Your task to perform on an android device: turn pop-ups off in chrome Image 0: 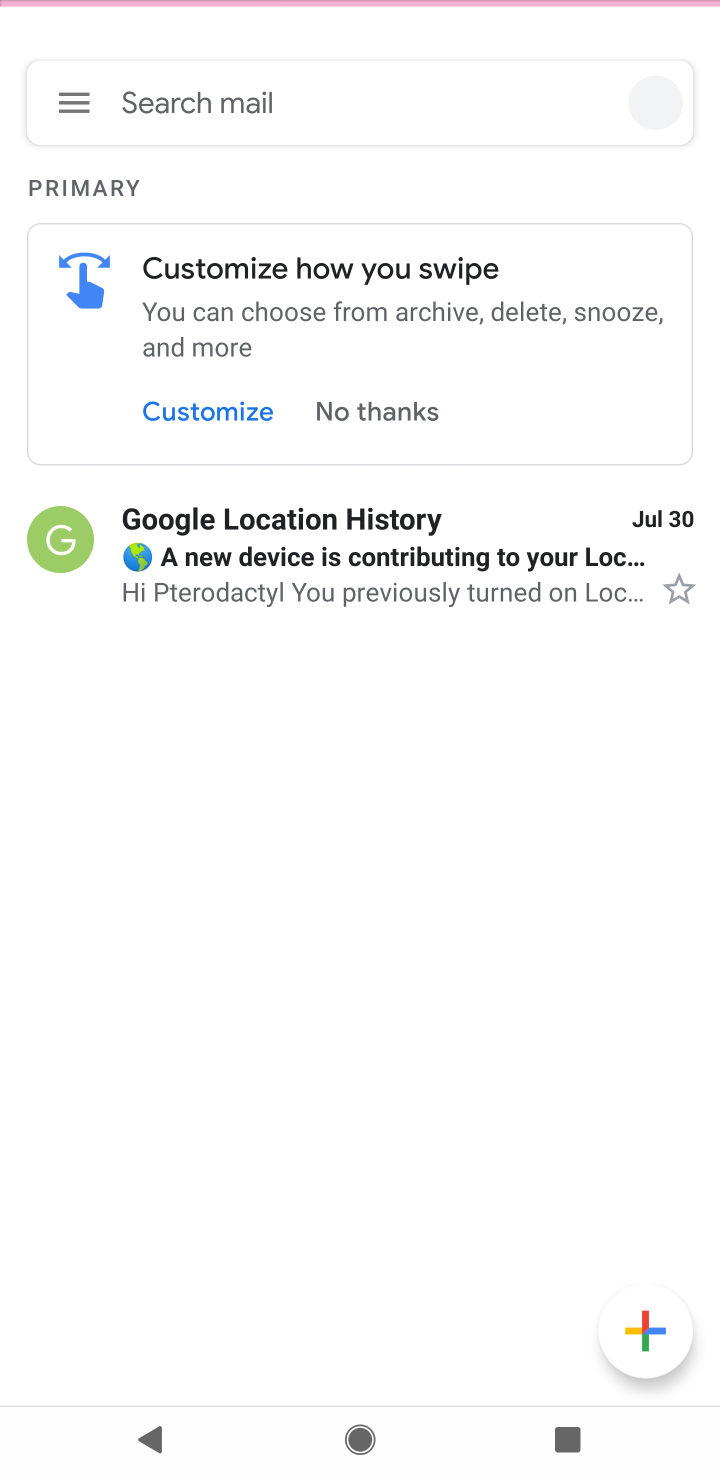
Step 0: press home button
Your task to perform on an android device: turn pop-ups off in chrome Image 1: 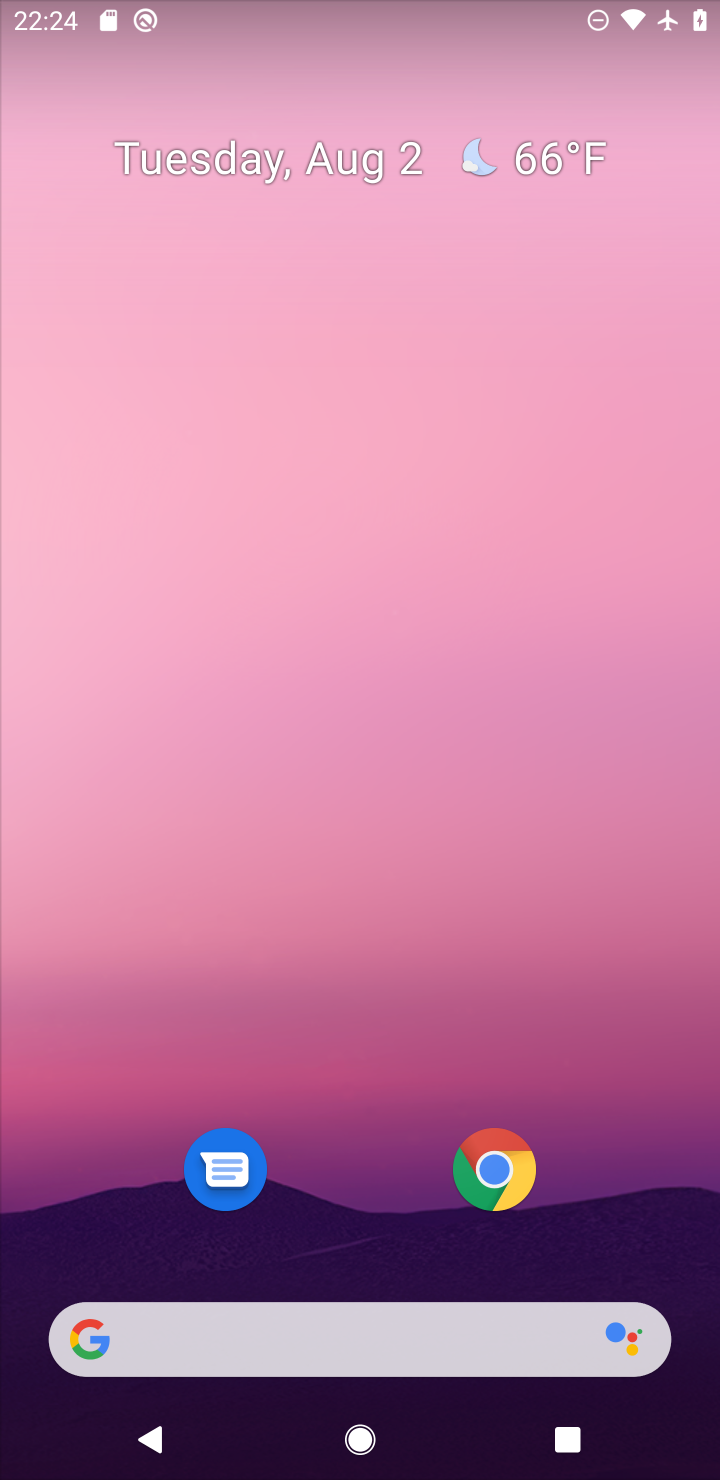
Step 1: click (495, 1169)
Your task to perform on an android device: turn pop-ups off in chrome Image 2: 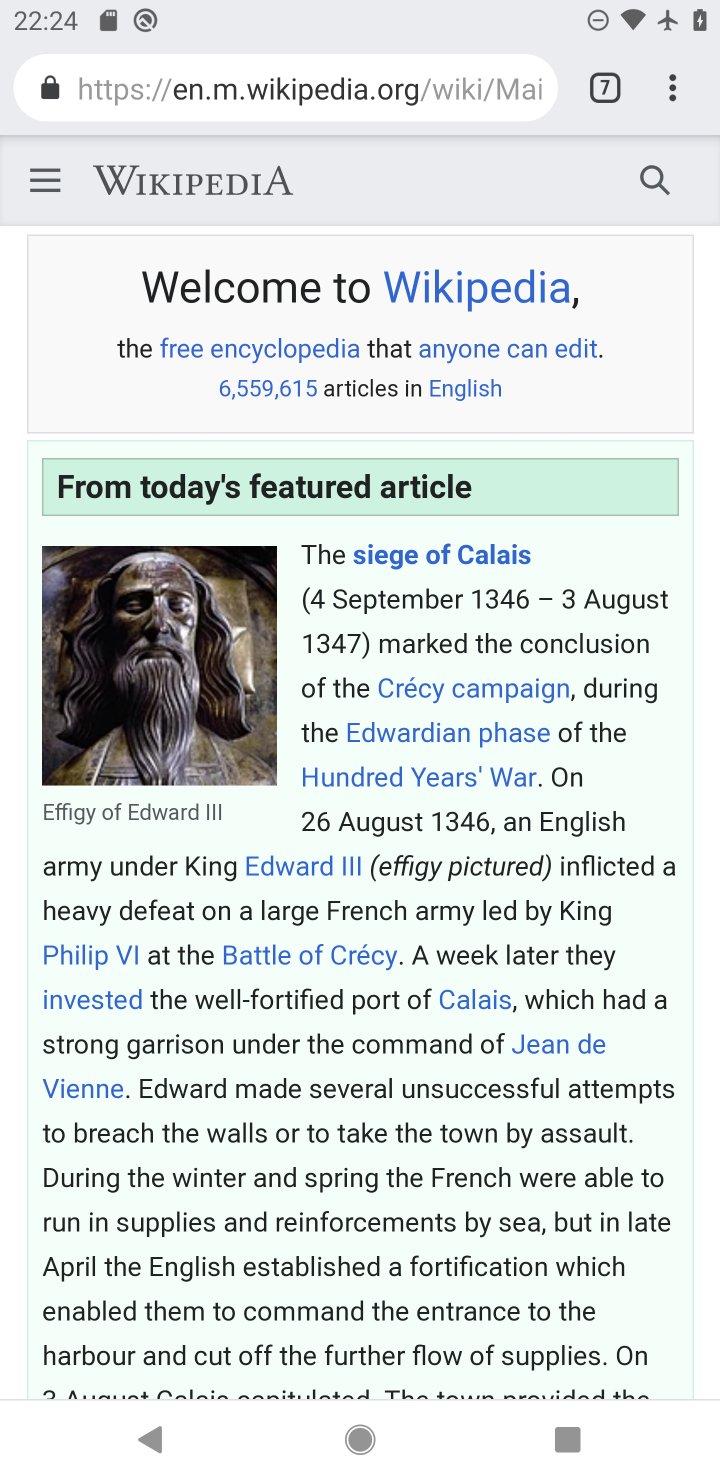
Step 2: click (674, 94)
Your task to perform on an android device: turn pop-ups off in chrome Image 3: 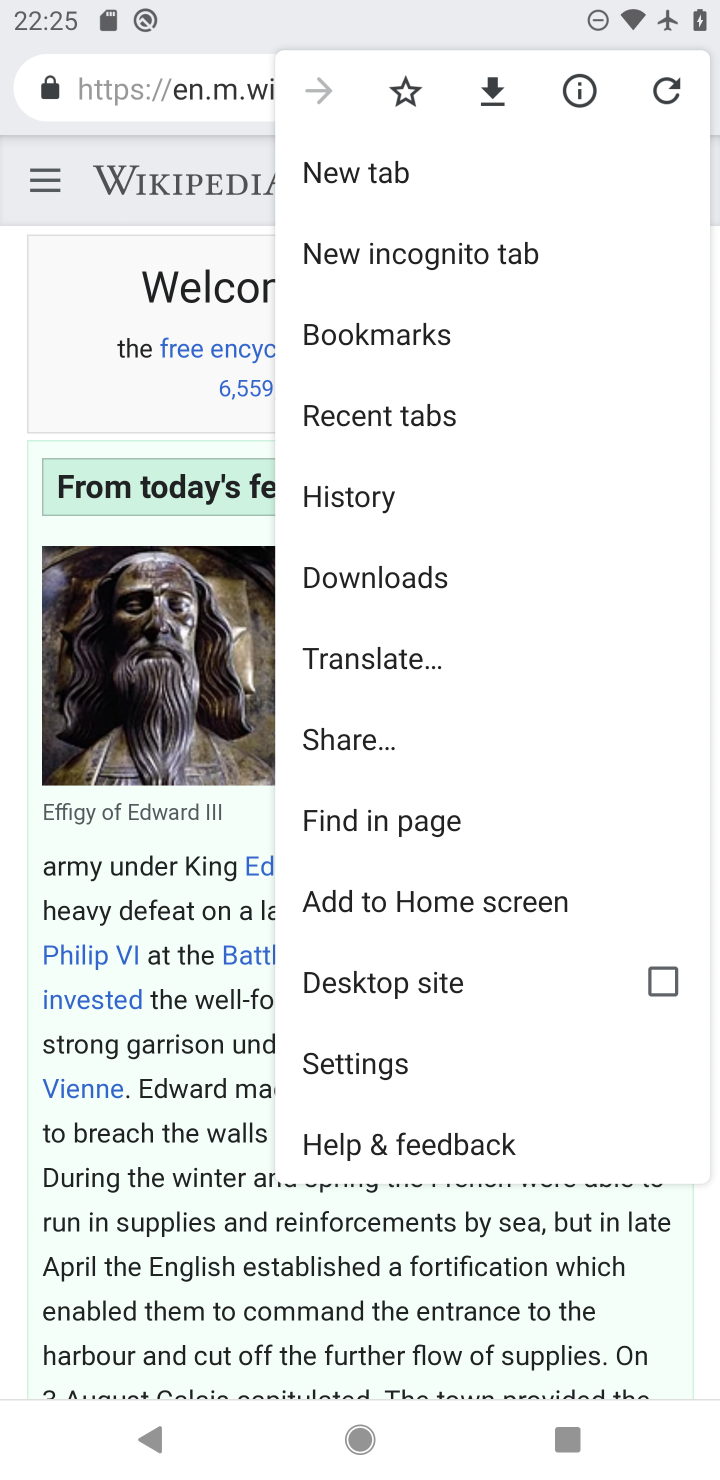
Step 3: click (337, 1057)
Your task to perform on an android device: turn pop-ups off in chrome Image 4: 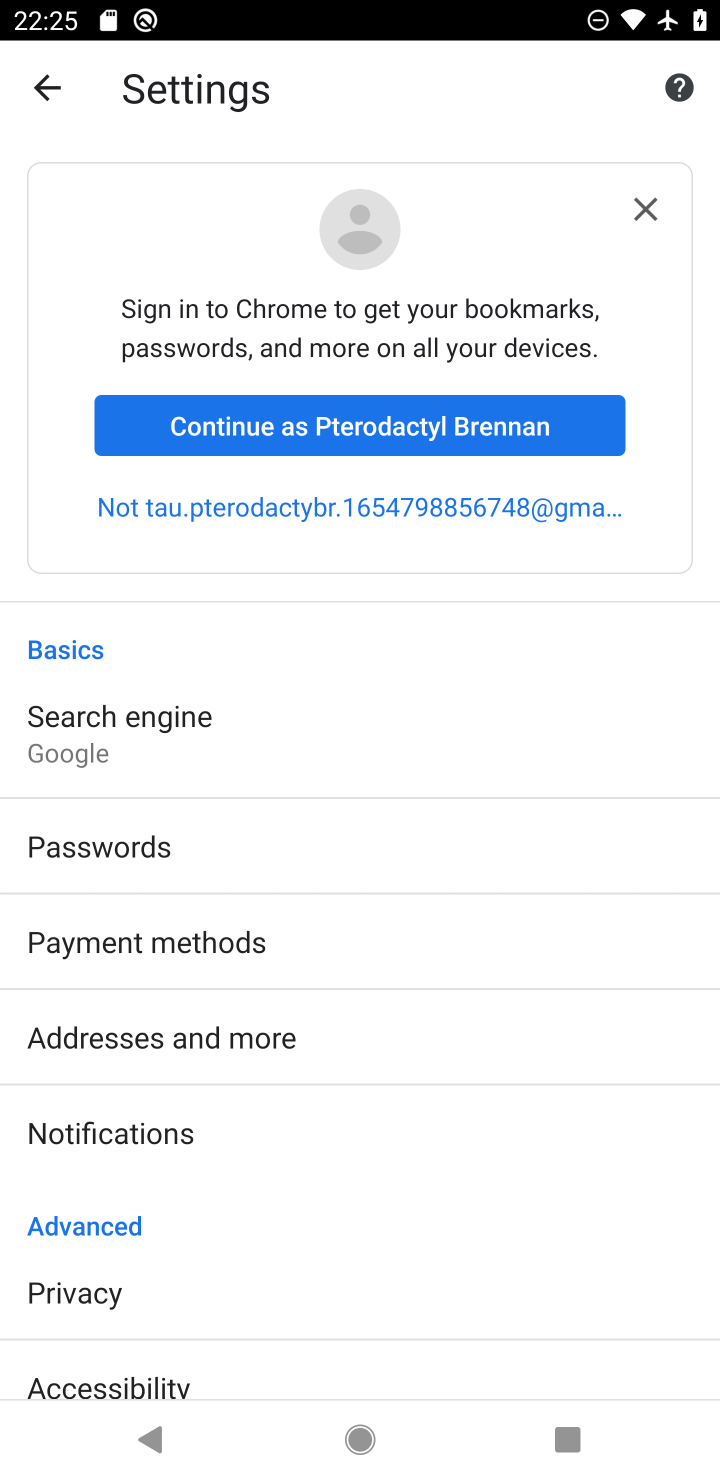
Step 4: drag from (250, 1313) to (236, 622)
Your task to perform on an android device: turn pop-ups off in chrome Image 5: 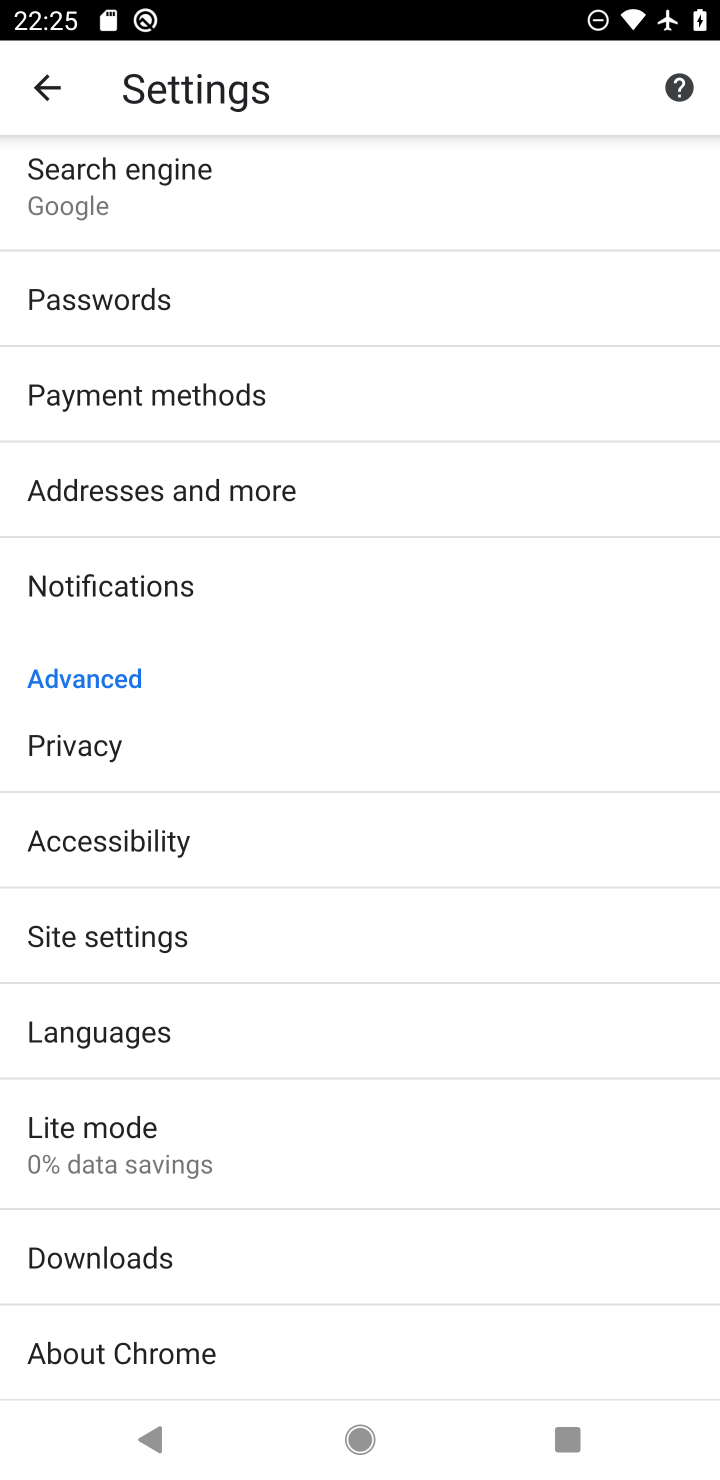
Step 5: click (125, 941)
Your task to perform on an android device: turn pop-ups off in chrome Image 6: 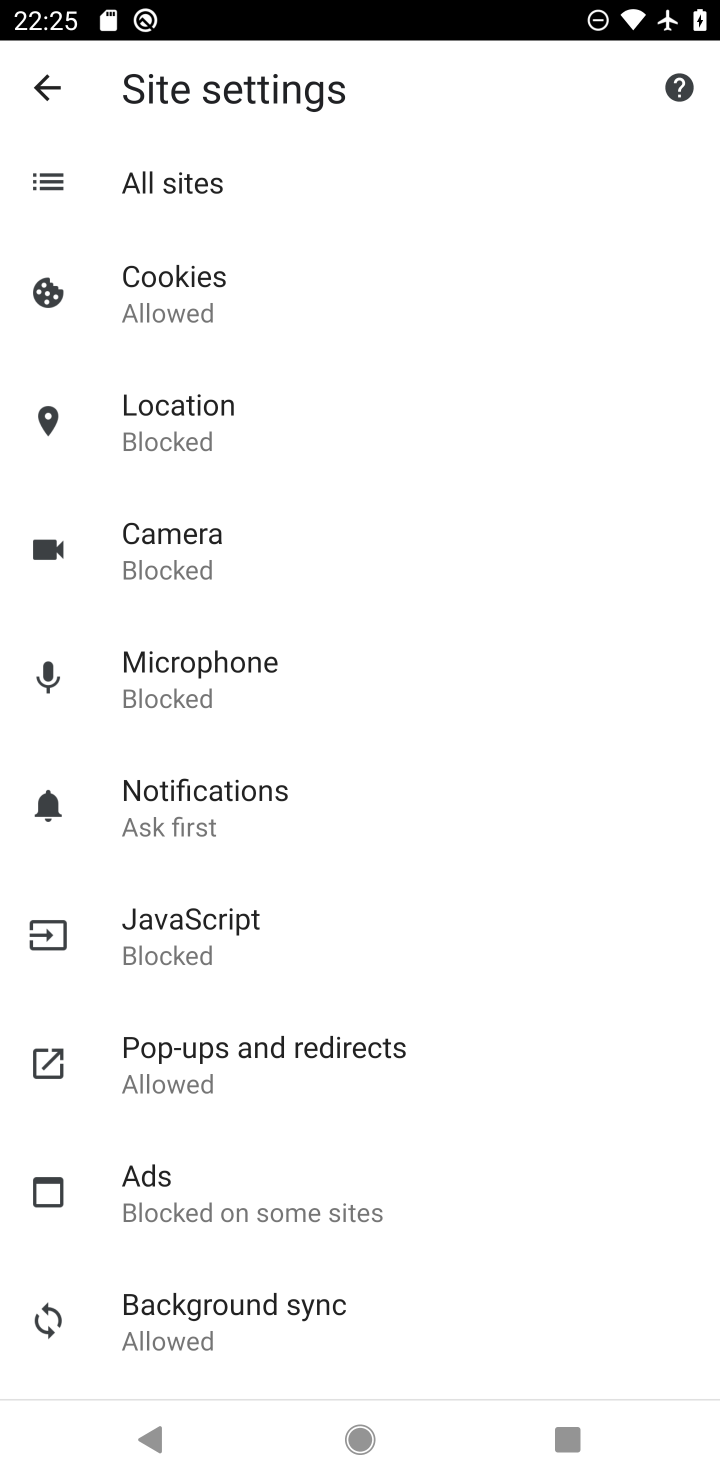
Step 6: click (189, 1040)
Your task to perform on an android device: turn pop-ups off in chrome Image 7: 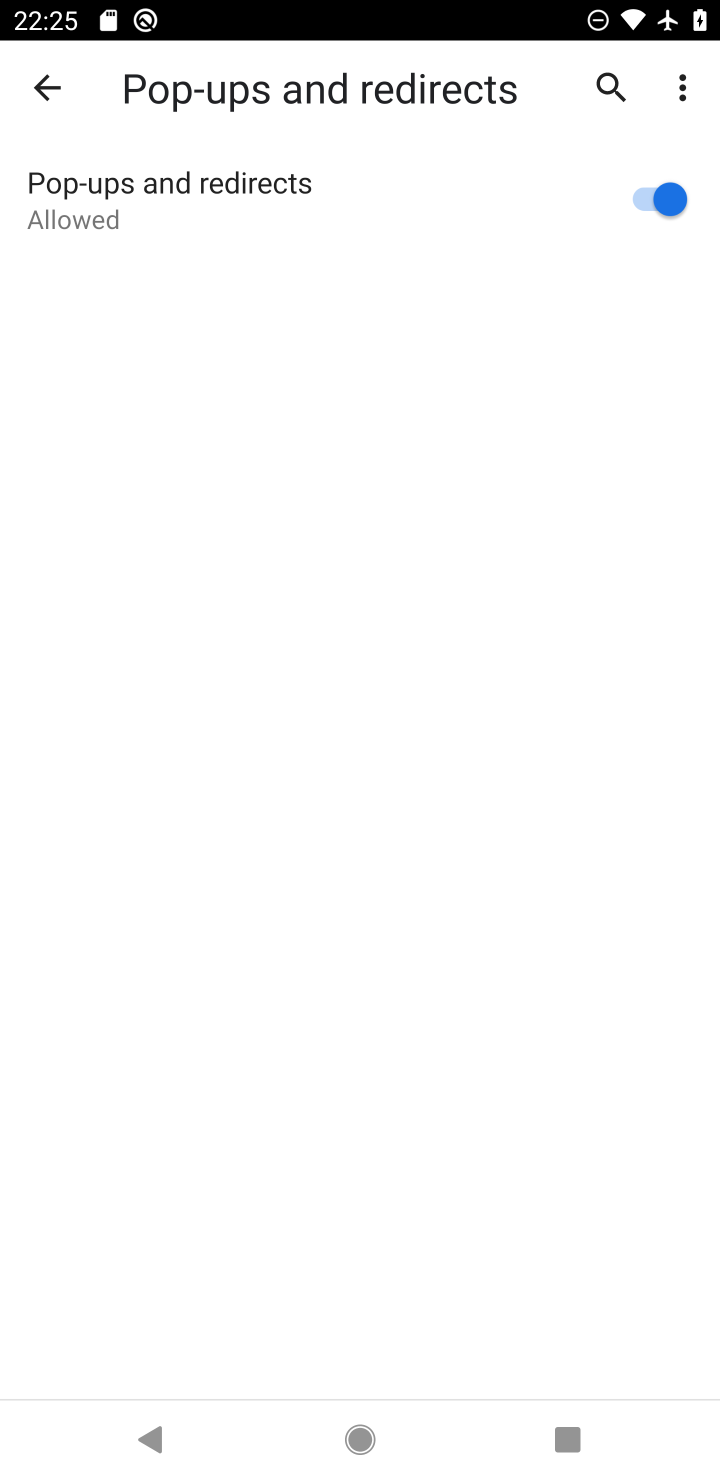
Step 7: click (648, 202)
Your task to perform on an android device: turn pop-ups off in chrome Image 8: 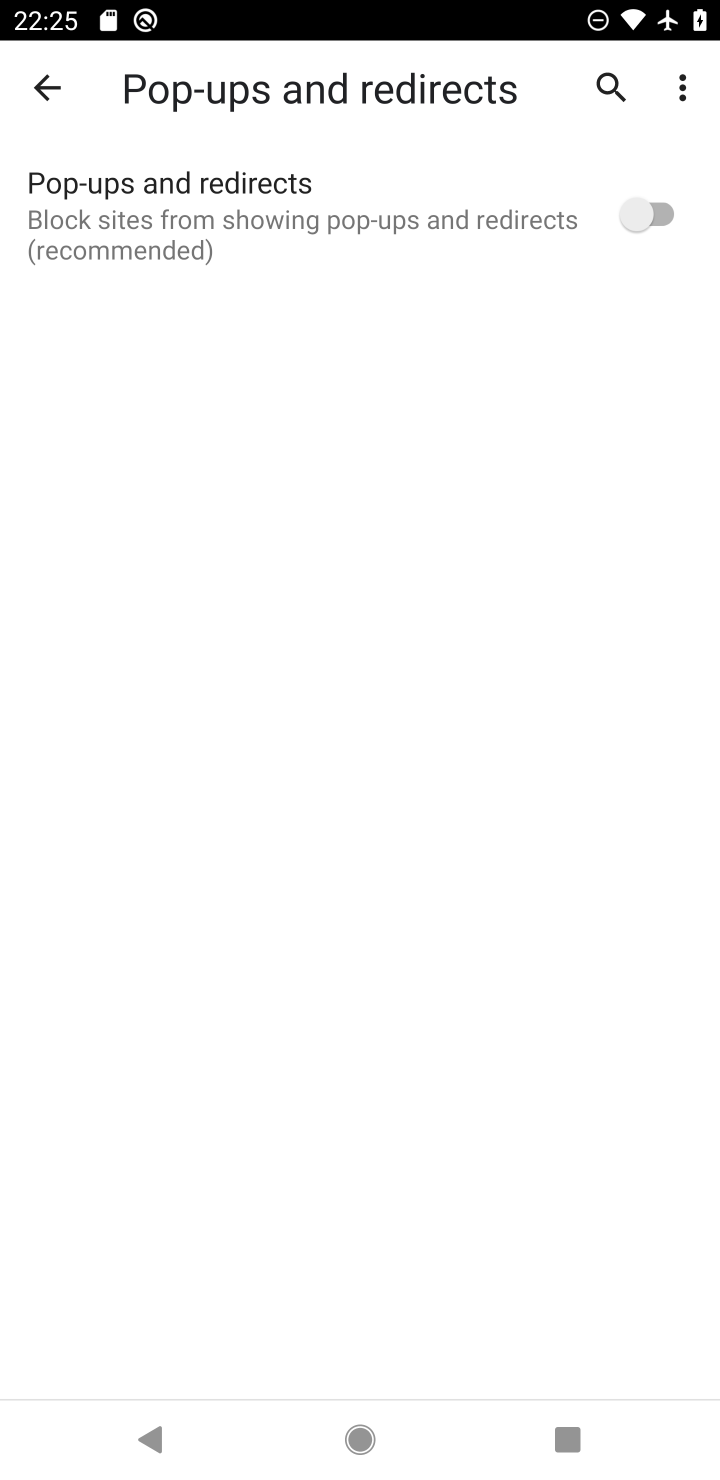
Step 8: task complete